Your task to perform on an android device: Open network settings Image 0: 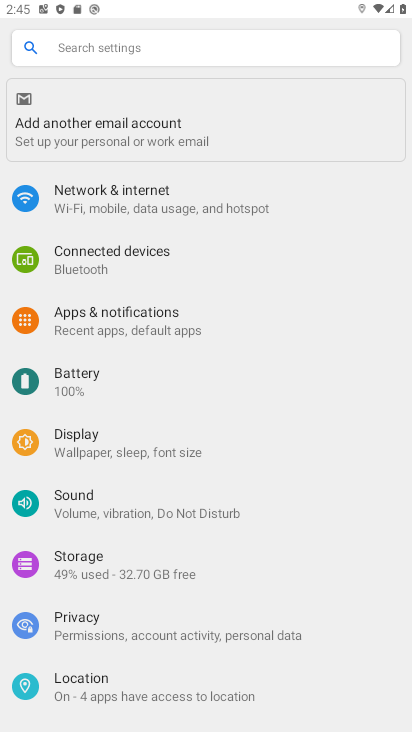
Step 0: press home button
Your task to perform on an android device: Open network settings Image 1: 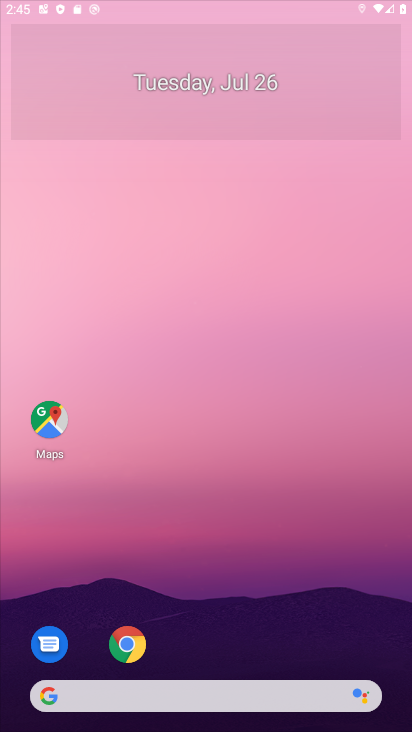
Step 1: drag from (289, 551) to (295, 103)
Your task to perform on an android device: Open network settings Image 2: 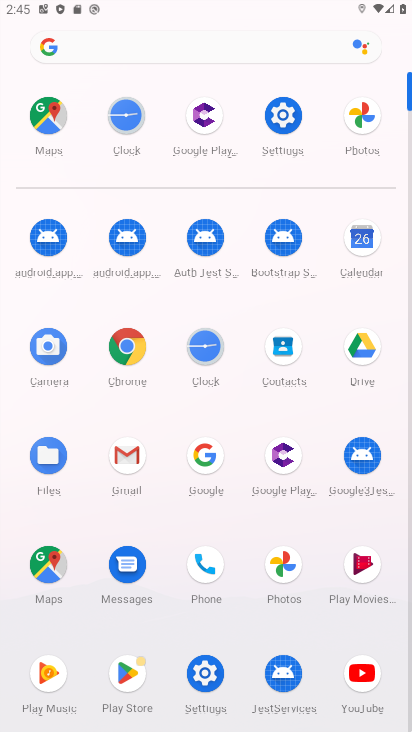
Step 2: click (288, 118)
Your task to perform on an android device: Open network settings Image 3: 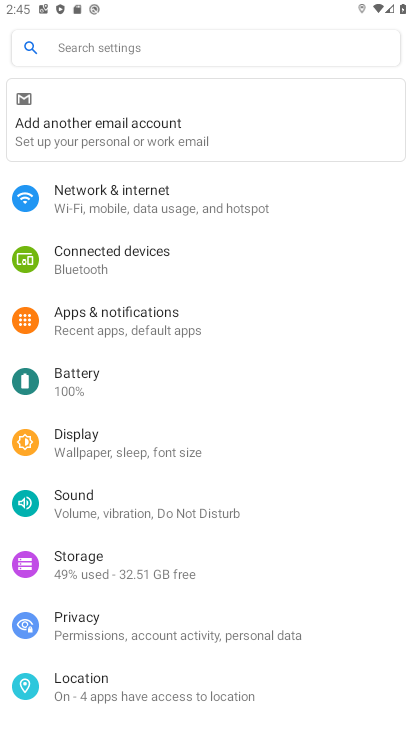
Step 3: click (89, 196)
Your task to perform on an android device: Open network settings Image 4: 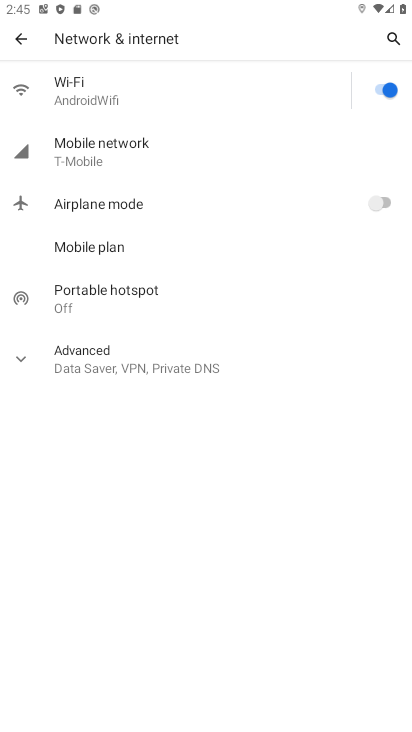
Step 4: task complete